Your task to perform on an android device: Open Amazon Image 0: 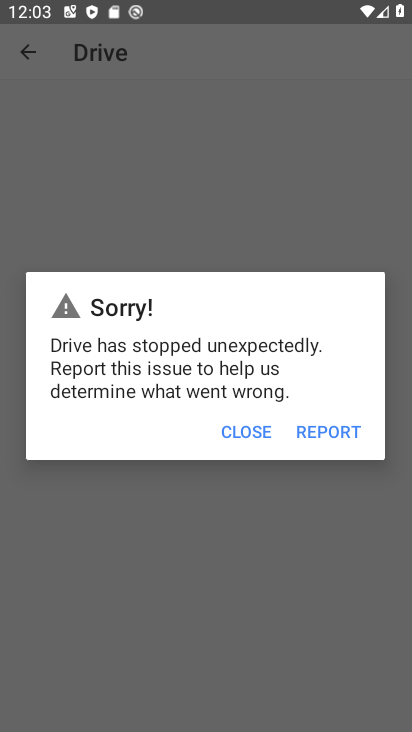
Step 0: press home button
Your task to perform on an android device: Open Amazon Image 1: 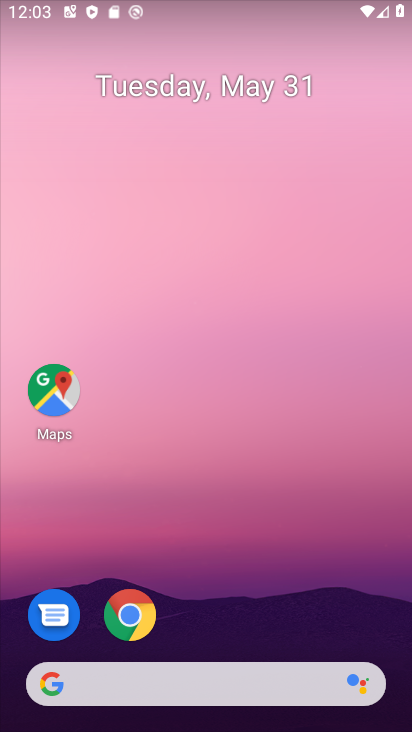
Step 1: drag from (350, 599) to (369, 231)
Your task to perform on an android device: Open Amazon Image 2: 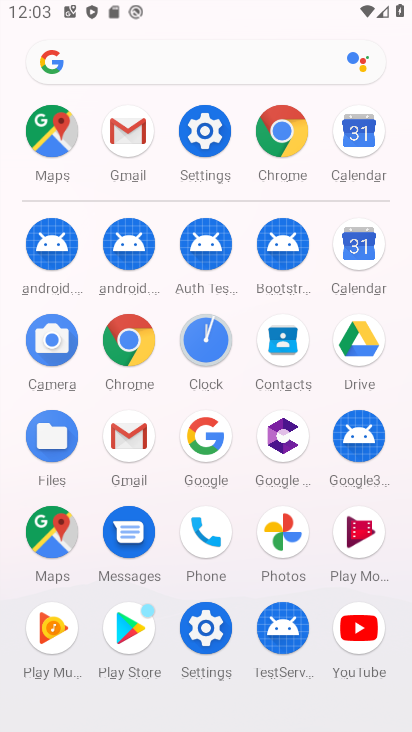
Step 2: click (144, 352)
Your task to perform on an android device: Open Amazon Image 3: 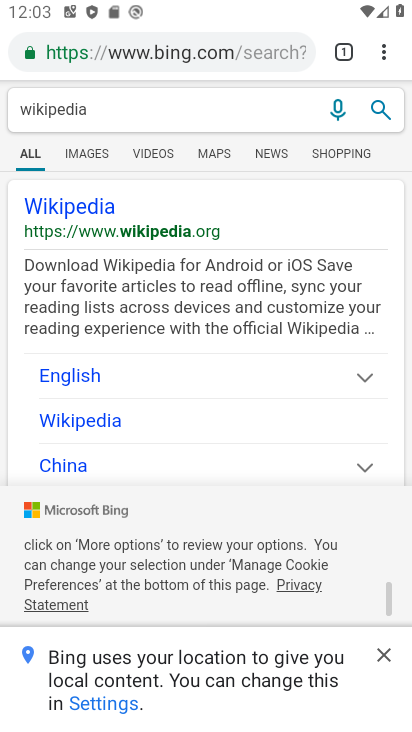
Step 3: click (225, 58)
Your task to perform on an android device: Open Amazon Image 4: 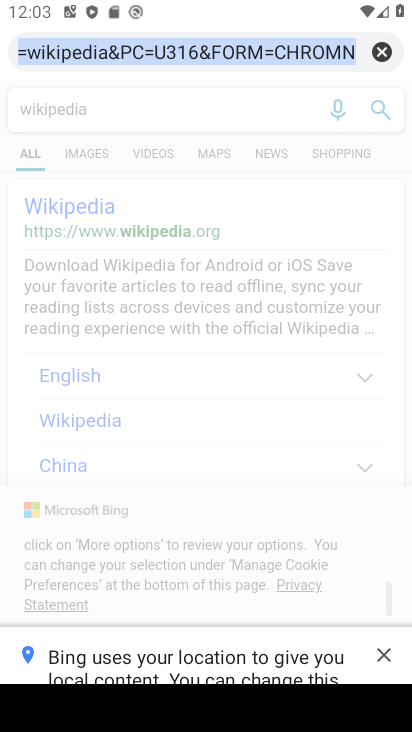
Step 4: click (371, 55)
Your task to perform on an android device: Open Amazon Image 5: 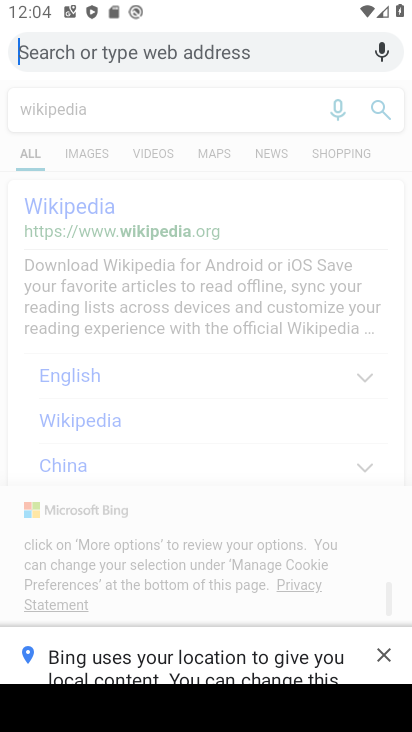
Step 5: type "amazon"
Your task to perform on an android device: Open Amazon Image 6: 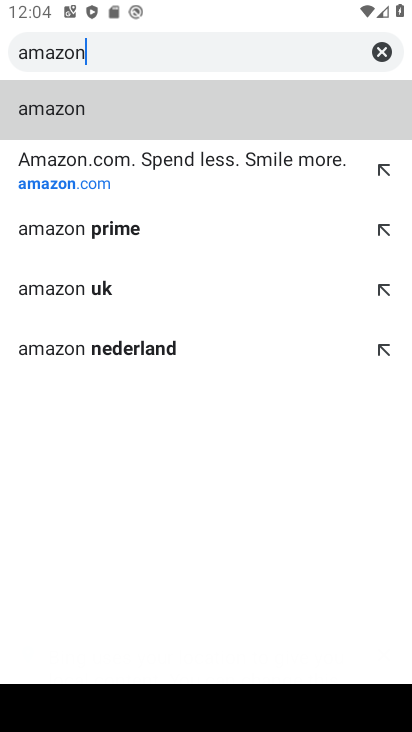
Step 6: click (175, 172)
Your task to perform on an android device: Open Amazon Image 7: 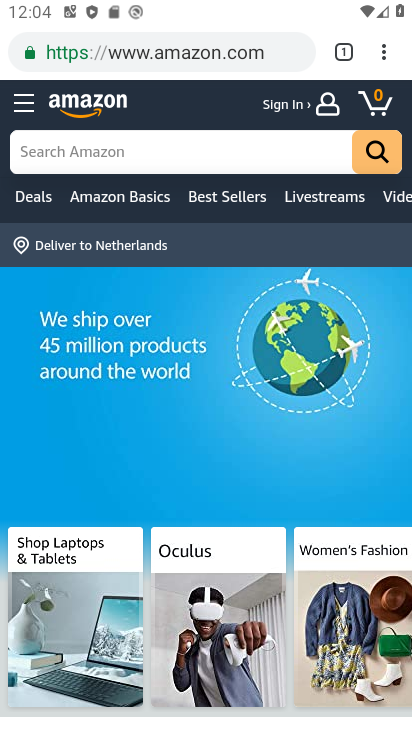
Step 7: task complete